Your task to perform on an android device: Open settings on Google Maps Image 0: 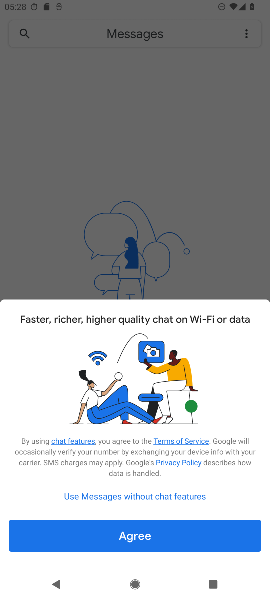
Step 0: press home button
Your task to perform on an android device: Open settings on Google Maps Image 1: 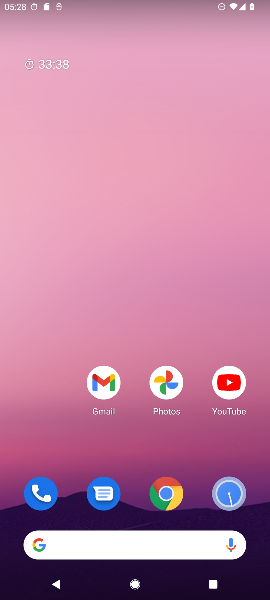
Step 1: drag from (51, 445) to (50, 145)
Your task to perform on an android device: Open settings on Google Maps Image 2: 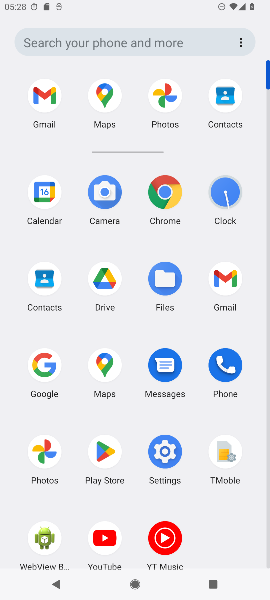
Step 2: click (103, 366)
Your task to perform on an android device: Open settings on Google Maps Image 3: 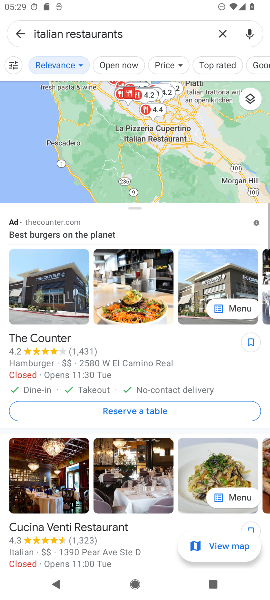
Step 3: press back button
Your task to perform on an android device: Open settings on Google Maps Image 4: 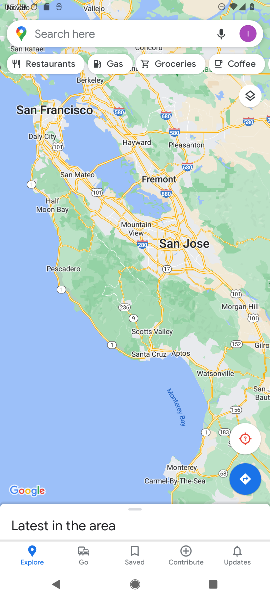
Step 4: click (245, 30)
Your task to perform on an android device: Open settings on Google Maps Image 5: 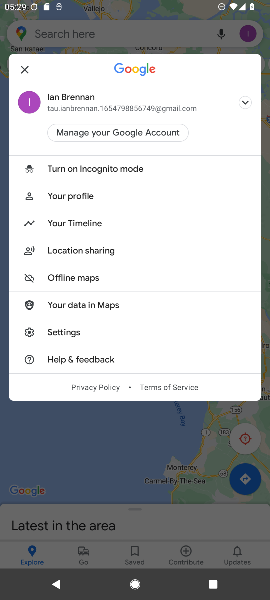
Step 5: click (87, 333)
Your task to perform on an android device: Open settings on Google Maps Image 6: 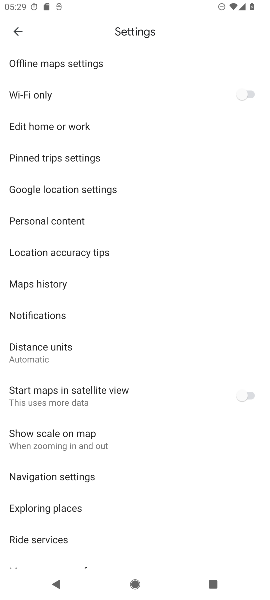
Step 6: task complete